Your task to perform on an android device: turn on the 24-hour format for clock Image 0: 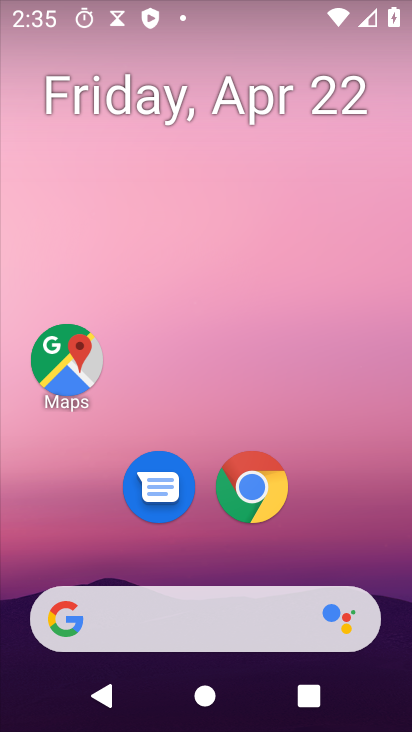
Step 0: drag from (159, 622) to (276, 113)
Your task to perform on an android device: turn on the 24-hour format for clock Image 1: 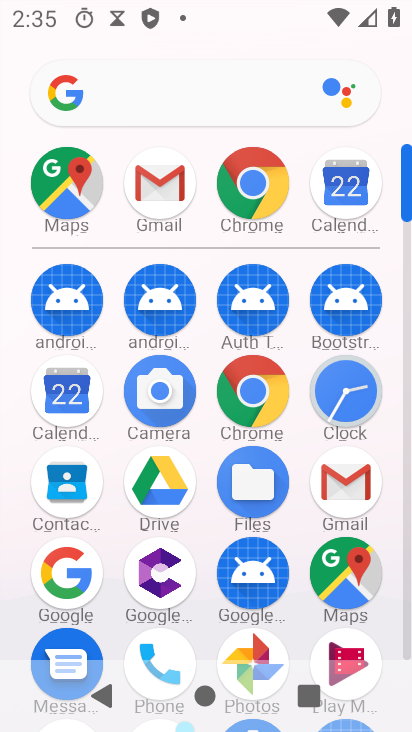
Step 1: click (351, 406)
Your task to perform on an android device: turn on the 24-hour format for clock Image 2: 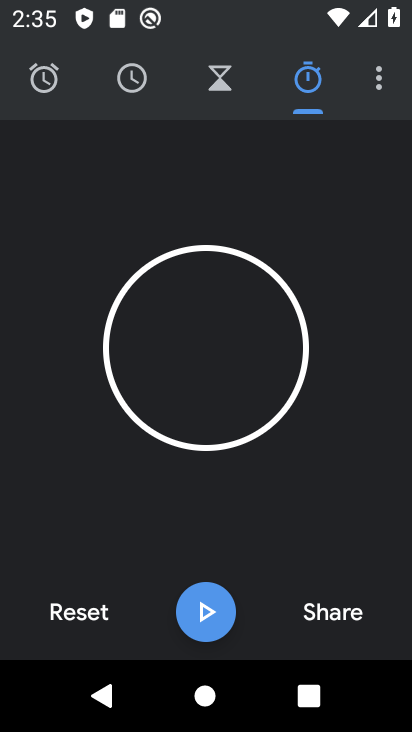
Step 2: click (377, 81)
Your task to perform on an android device: turn on the 24-hour format for clock Image 3: 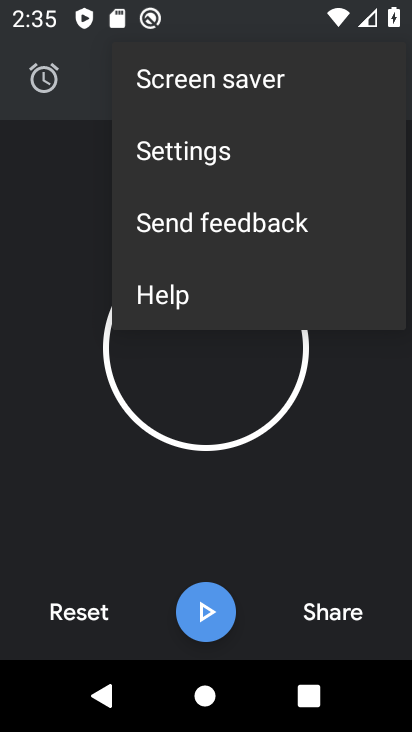
Step 3: click (175, 146)
Your task to perform on an android device: turn on the 24-hour format for clock Image 4: 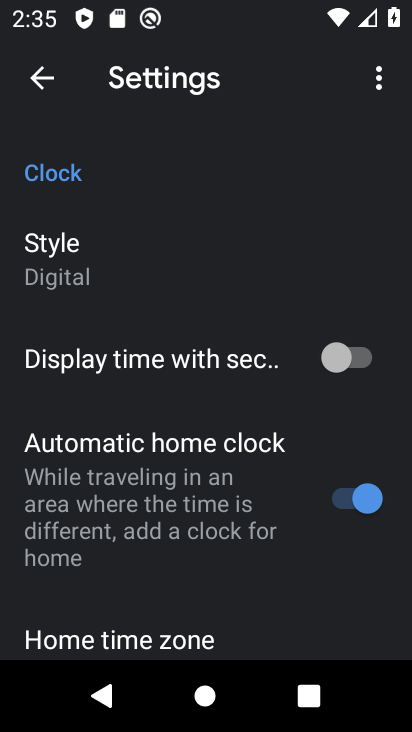
Step 4: drag from (165, 594) to (280, 125)
Your task to perform on an android device: turn on the 24-hour format for clock Image 5: 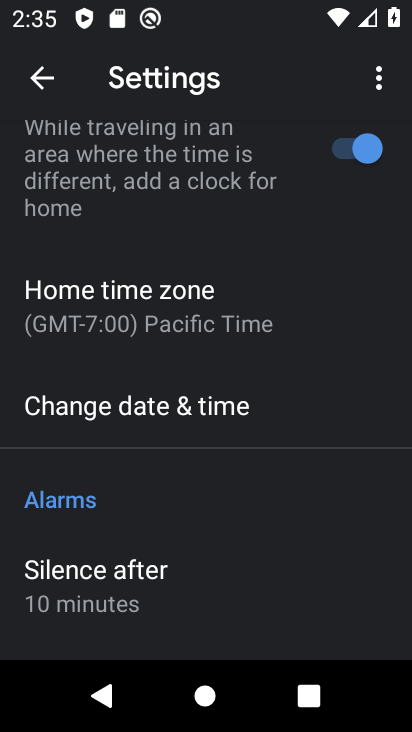
Step 5: drag from (174, 531) to (354, 136)
Your task to perform on an android device: turn on the 24-hour format for clock Image 6: 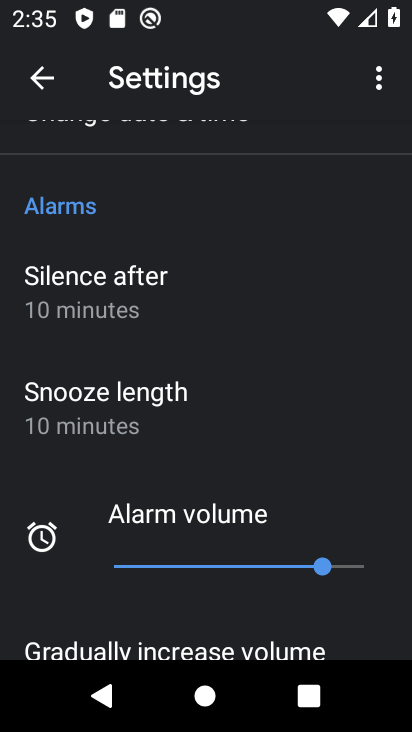
Step 6: drag from (121, 529) to (278, 224)
Your task to perform on an android device: turn on the 24-hour format for clock Image 7: 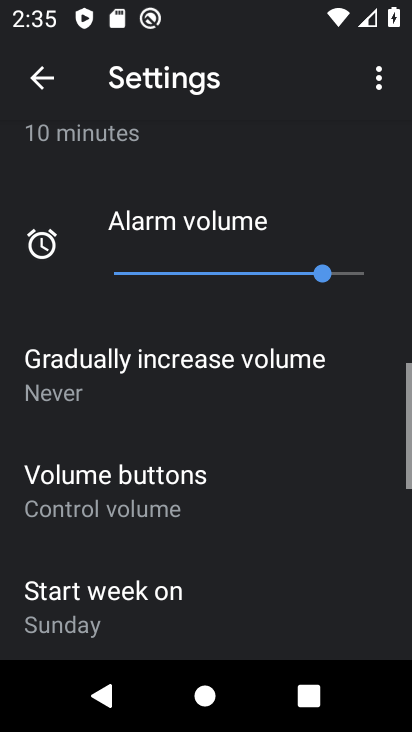
Step 7: drag from (325, 169) to (240, 546)
Your task to perform on an android device: turn on the 24-hour format for clock Image 8: 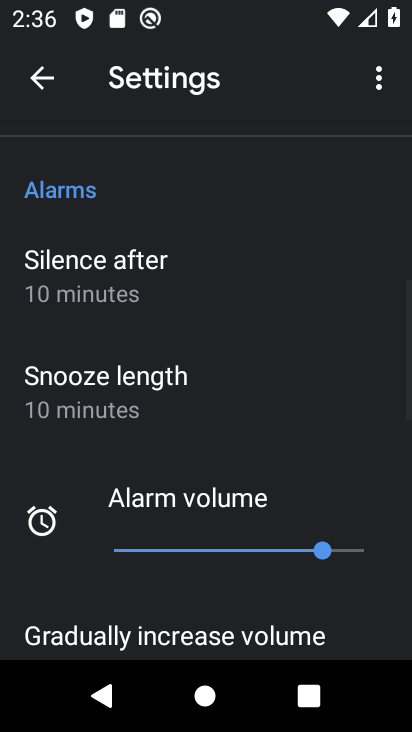
Step 8: drag from (226, 294) to (152, 646)
Your task to perform on an android device: turn on the 24-hour format for clock Image 9: 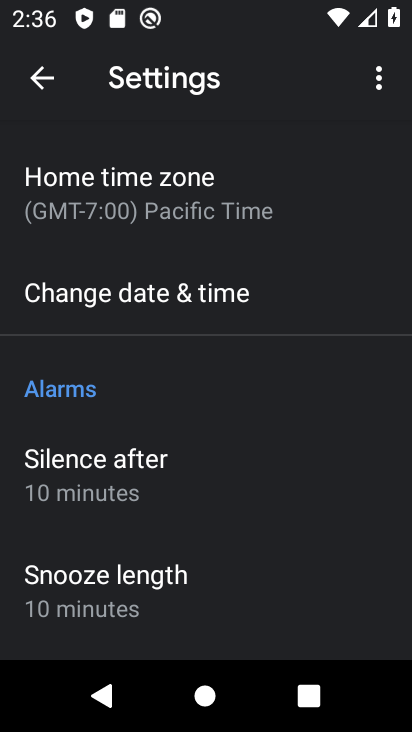
Step 9: click (164, 296)
Your task to perform on an android device: turn on the 24-hour format for clock Image 10: 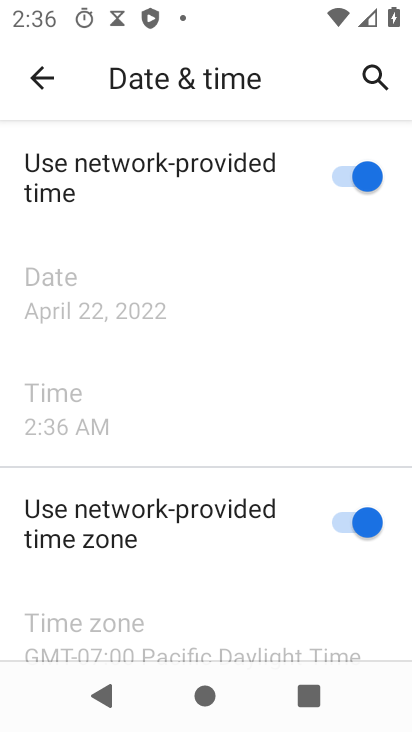
Step 10: drag from (170, 591) to (341, 174)
Your task to perform on an android device: turn on the 24-hour format for clock Image 11: 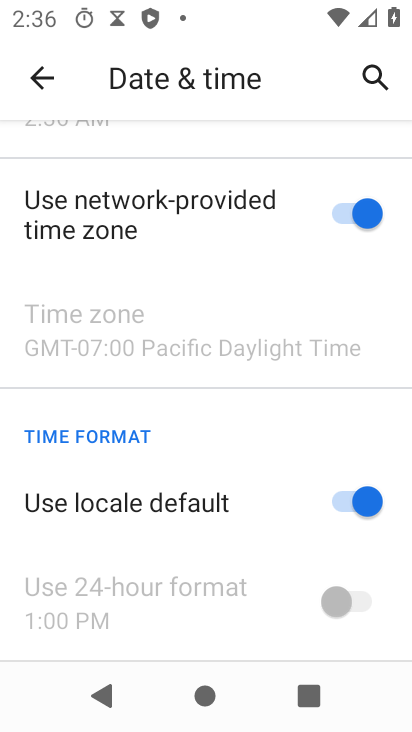
Step 11: click (342, 502)
Your task to perform on an android device: turn on the 24-hour format for clock Image 12: 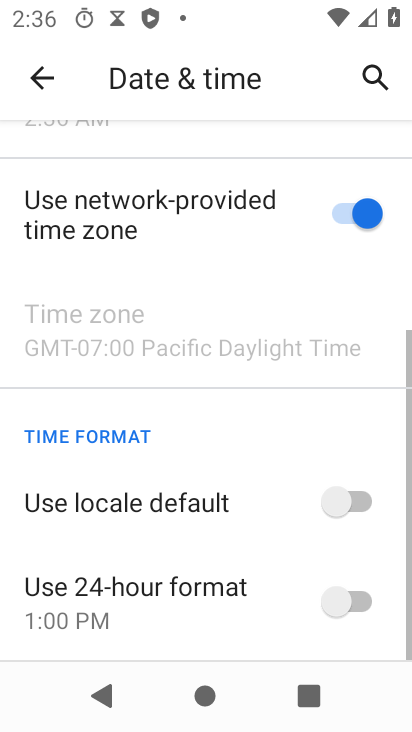
Step 12: click (362, 614)
Your task to perform on an android device: turn on the 24-hour format for clock Image 13: 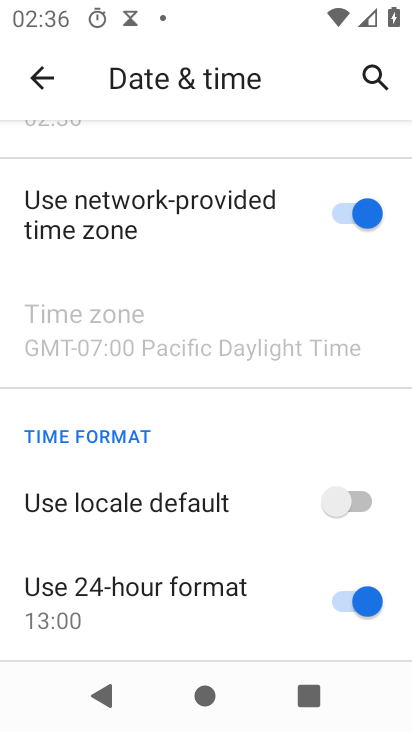
Step 13: task complete